Your task to perform on an android device: Open Maps and search for coffee Image 0: 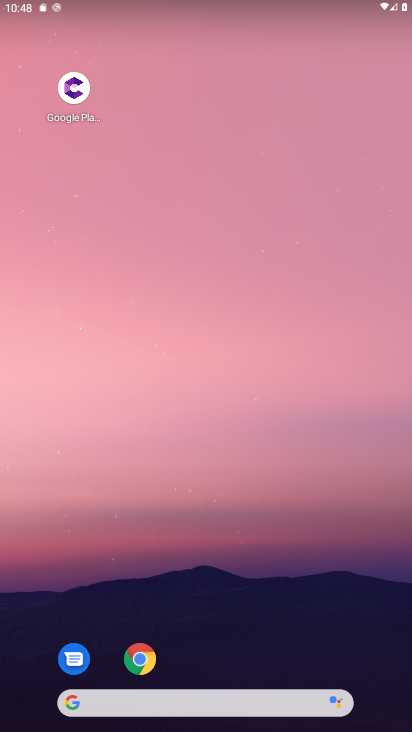
Step 0: drag from (194, 668) to (263, 126)
Your task to perform on an android device: Open Maps and search for coffee Image 1: 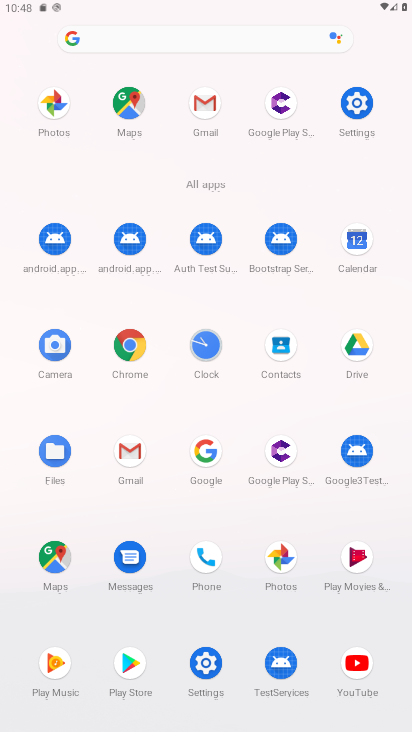
Step 1: click (56, 560)
Your task to perform on an android device: Open Maps and search for coffee Image 2: 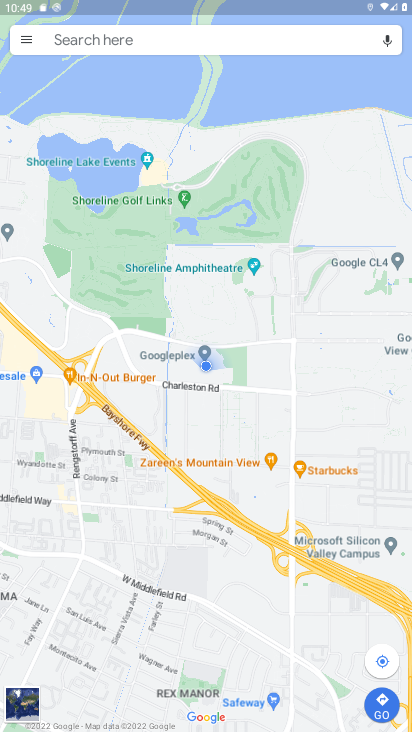
Step 2: click (118, 37)
Your task to perform on an android device: Open Maps and search for coffee Image 3: 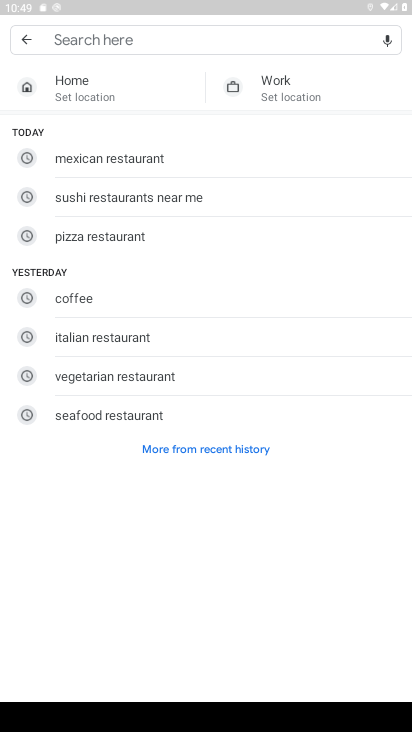
Step 3: type "coffee "
Your task to perform on an android device: Open Maps and search for coffee Image 4: 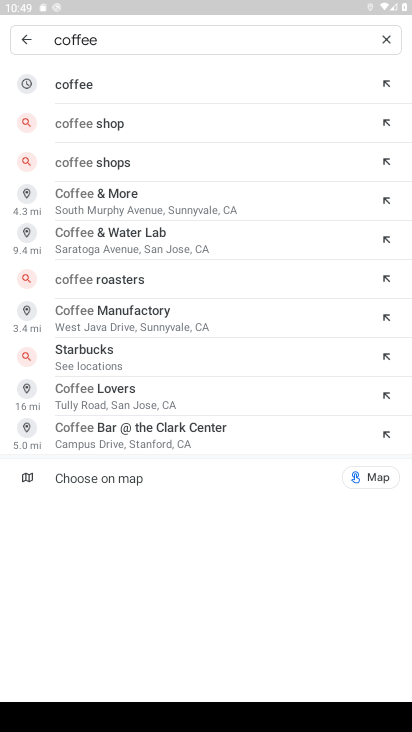
Step 4: click (131, 92)
Your task to perform on an android device: Open Maps and search for coffee Image 5: 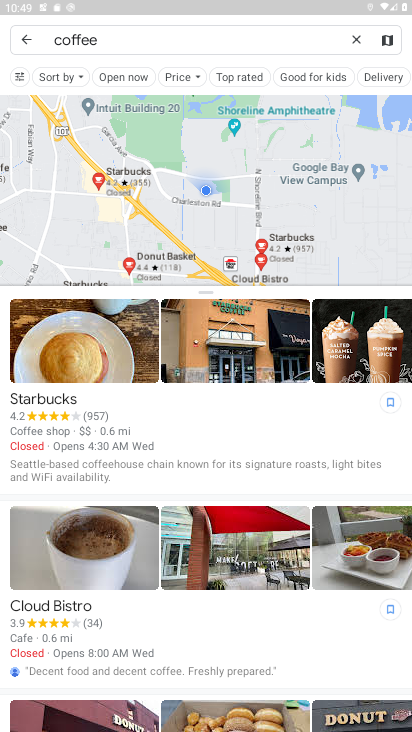
Step 5: task complete